Your task to perform on an android device: Go to settings Image 0: 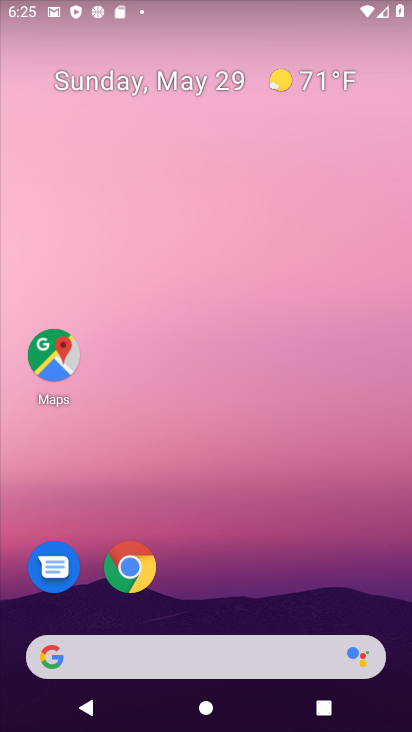
Step 0: drag from (274, 609) to (317, 139)
Your task to perform on an android device: Go to settings Image 1: 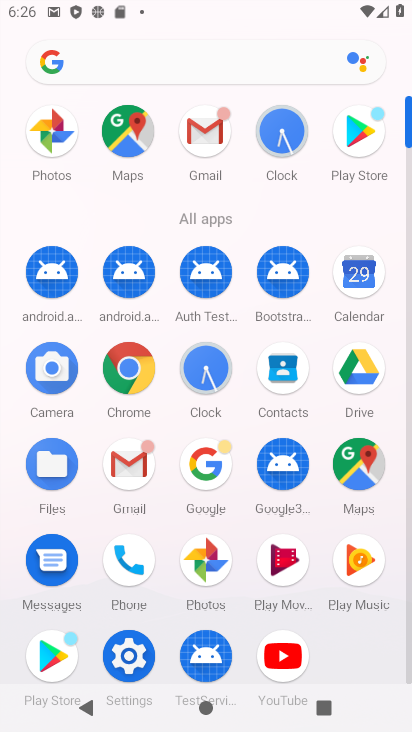
Step 1: click (116, 648)
Your task to perform on an android device: Go to settings Image 2: 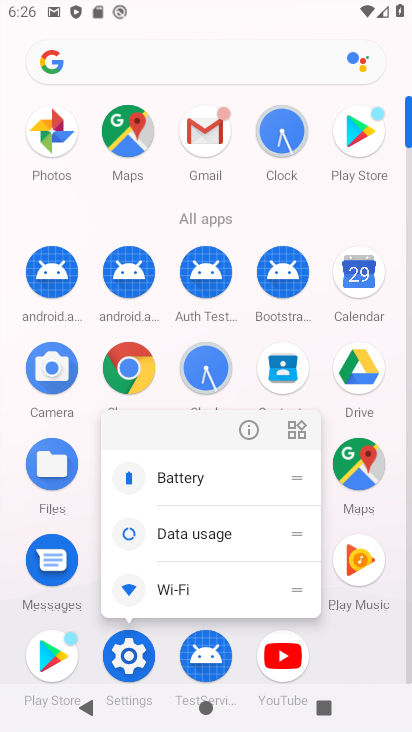
Step 2: click (116, 648)
Your task to perform on an android device: Go to settings Image 3: 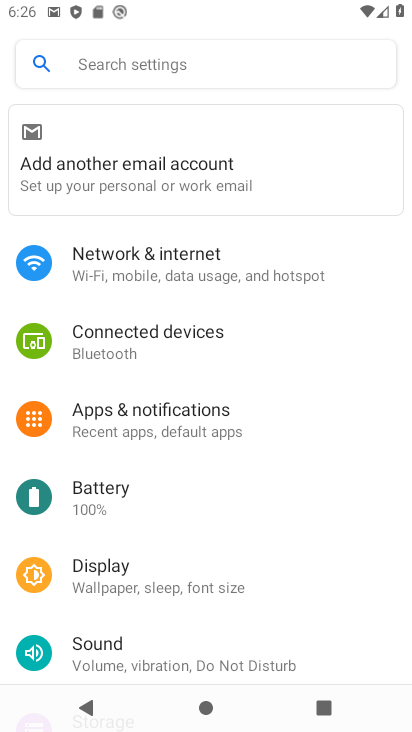
Step 3: task complete